Your task to perform on an android device: Play the last video I watched on Youtube Image 0: 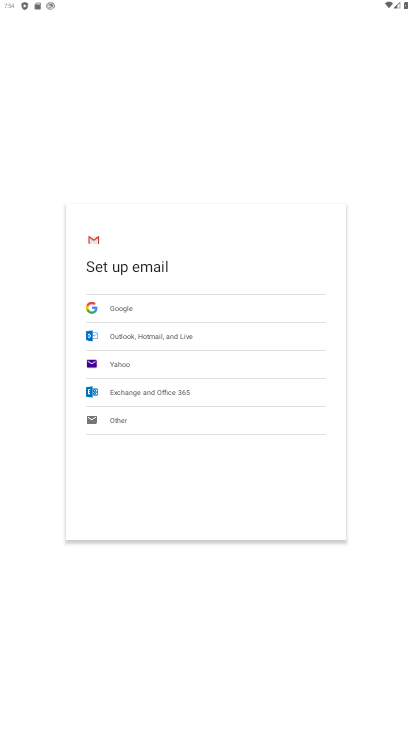
Step 0: press home button
Your task to perform on an android device: Play the last video I watched on Youtube Image 1: 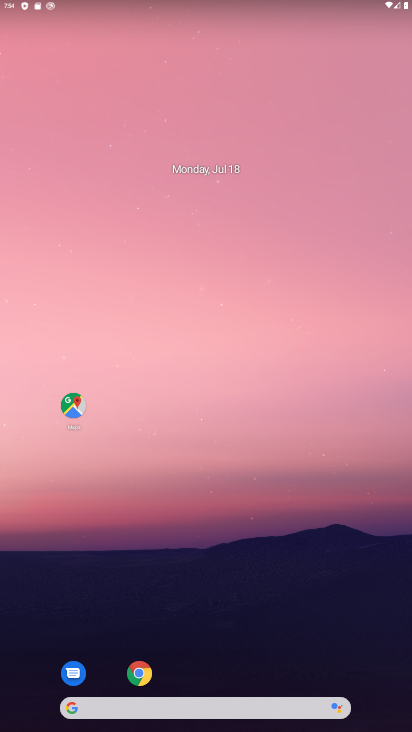
Step 1: drag from (170, 612) to (164, 88)
Your task to perform on an android device: Play the last video I watched on Youtube Image 2: 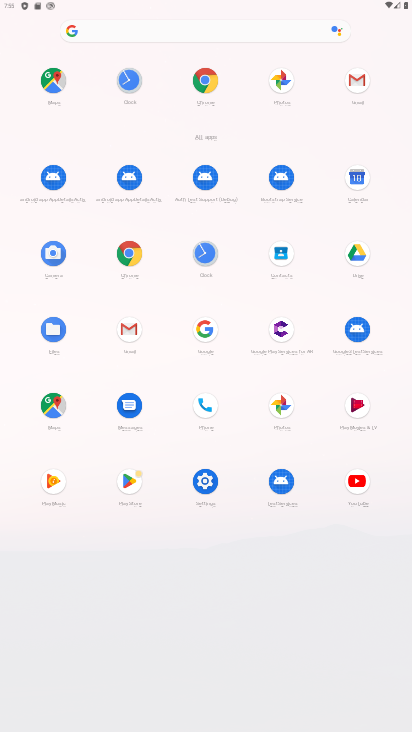
Step 2: click (357, 488)
Your task to perform on an android device: Play the last video I watched on Youtube Image 3: 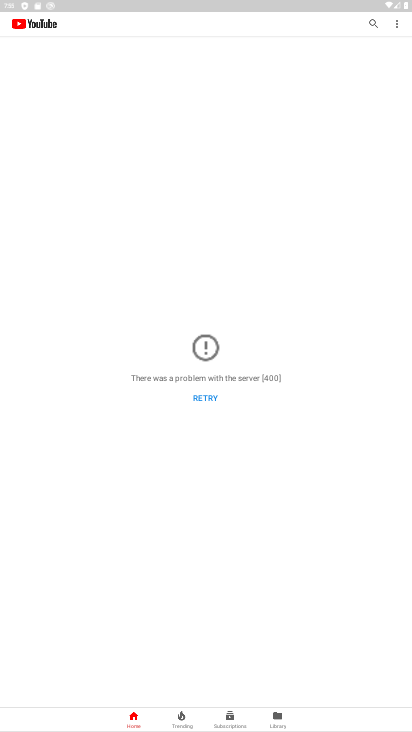
Step 3: task complete